Your task to perform on an android device: show emergency info Image 0: 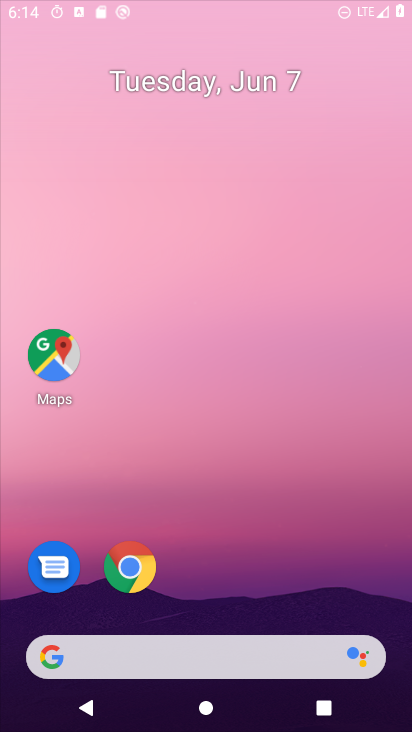
Step 0: drag from (340, 678) to (317, 157)
Your task to perform on an android device: show emergency info Image 1: 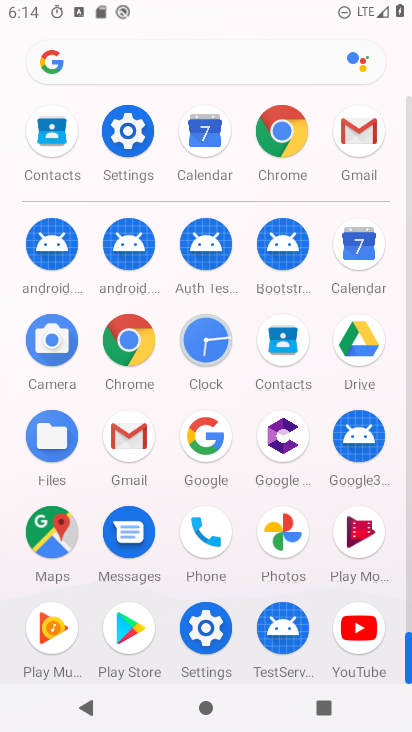
Step 1: click (128, 115)
Your task to perform on an android device: show emergency info Image 2: 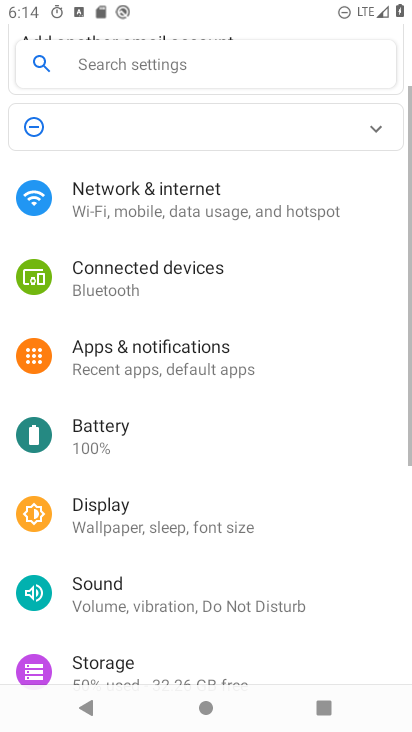
Step 2: drag from (309, 645) to (356, 196)
Your task to perform on an android device: show emergency info Image 3: 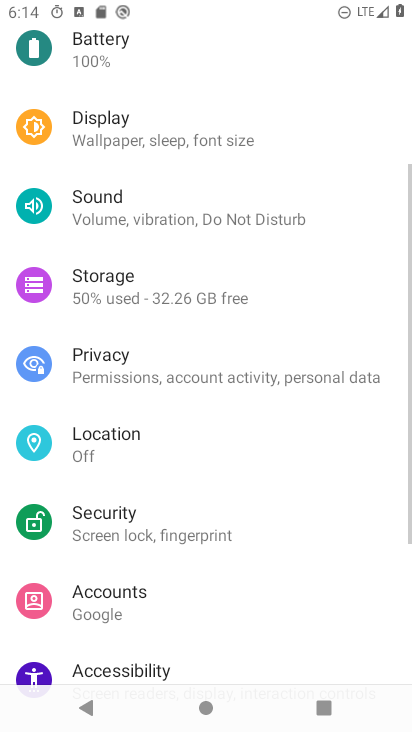
Step 3: drag from (289, 699) to (324, 292)
Your task to perform on an android device: show emergency info Image 4: 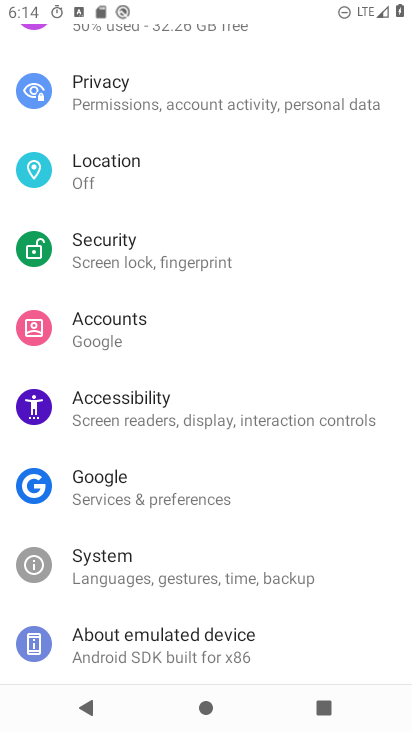
Step 4: drag from (314, 635) to (329, 276)
Your task to perform on an android device: show emergency info Image 5: 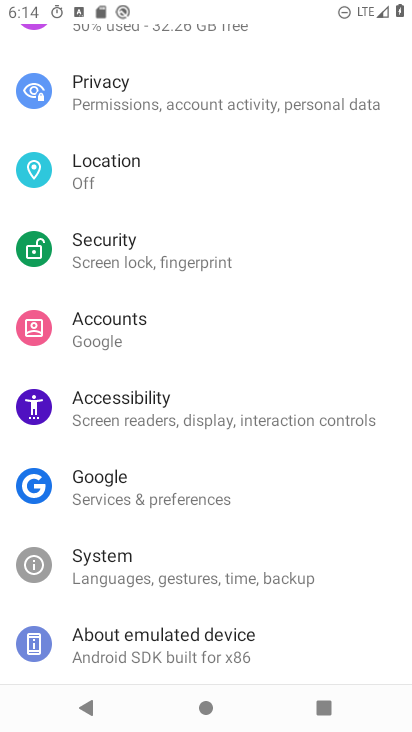
Step 5: click (255, 664)
Your task to perform on an android device: show emergency info Image 6: 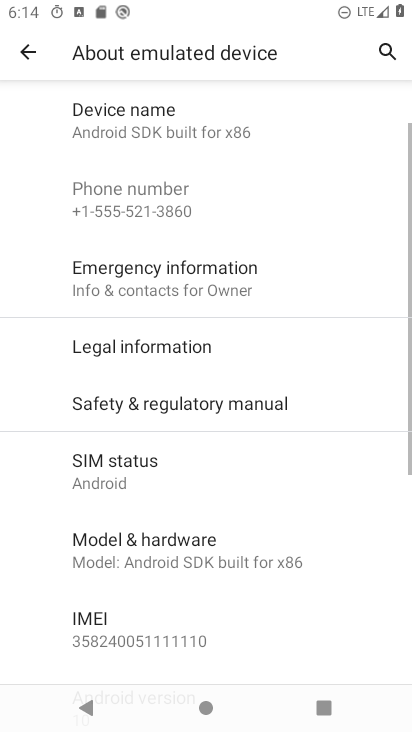
Step 6: click (210, 277)
Your task to perform on an android device: show emergency info Image 7: 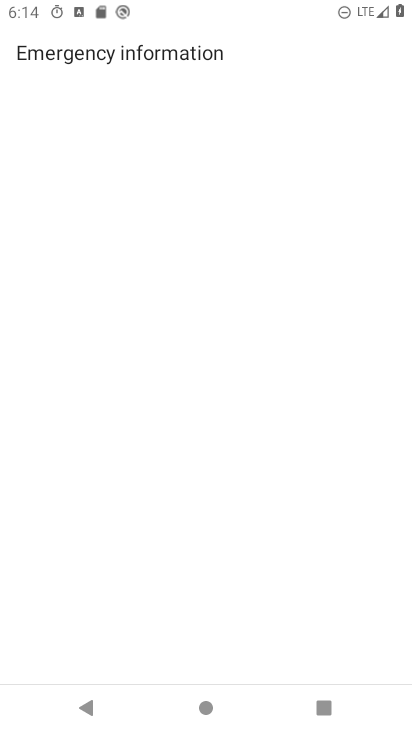
Step 7: task complete